Your task to perform on an android device: turn off data saver in the chrome app Image 0: 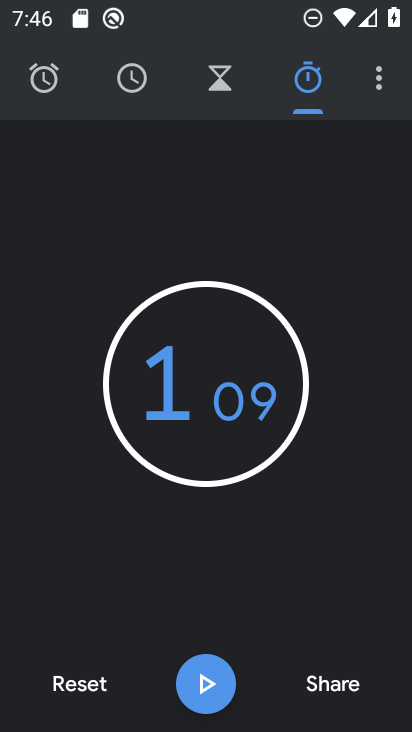
Step 0: press home button
Your task to perform on an android device: turn off data saver in the chrome app Image 1: 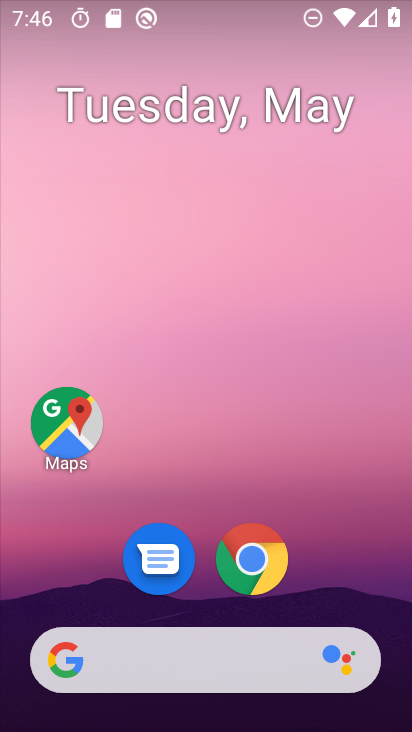
Step 1: drag from (389, 634) to (283, 73)
Your task to perform on an android device: turn off data saver in the chrome app Image 2: 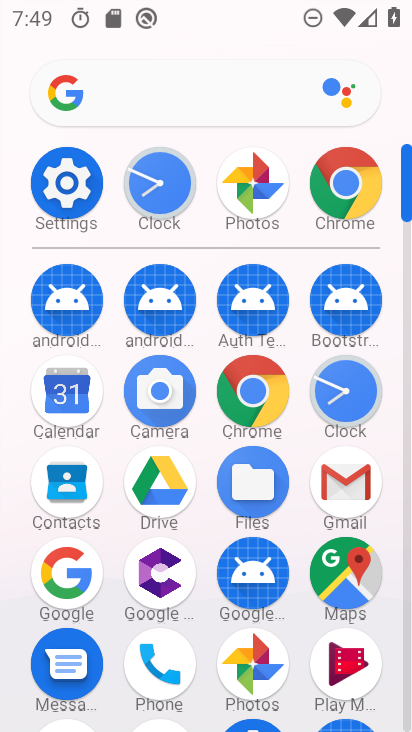
Step 2: click (283, 394)
Your task to perform on an android device: turn off data saver in the chrome app Image 3: 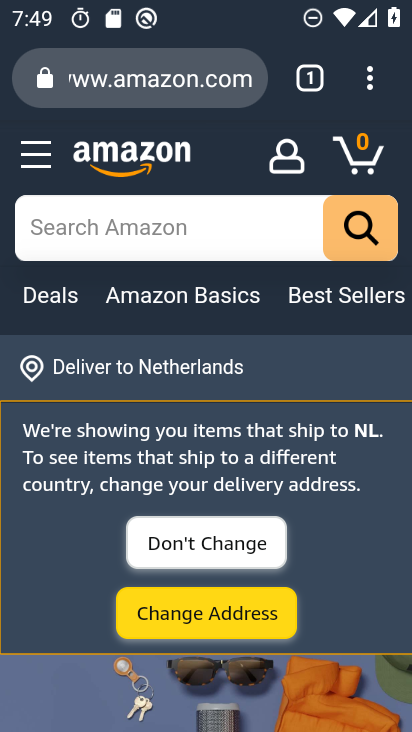
Step 3: press back button
Your task to perform on an android device: turn off data saver in the chrome app Image 4: 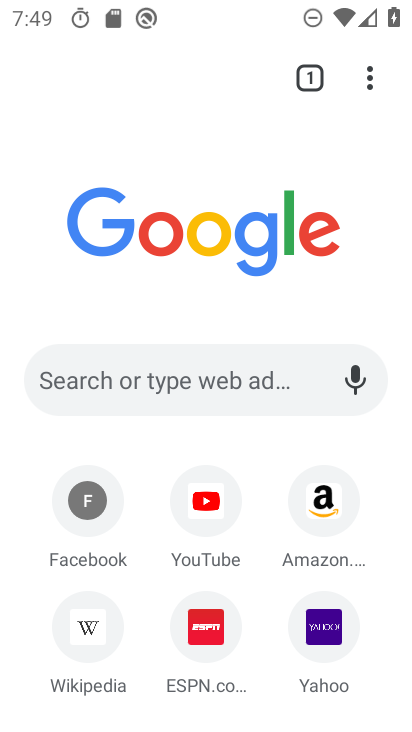
Step 4: click (365, 84)
Your task to perform on an android device: turn off data saver in the chrome app Image 5: 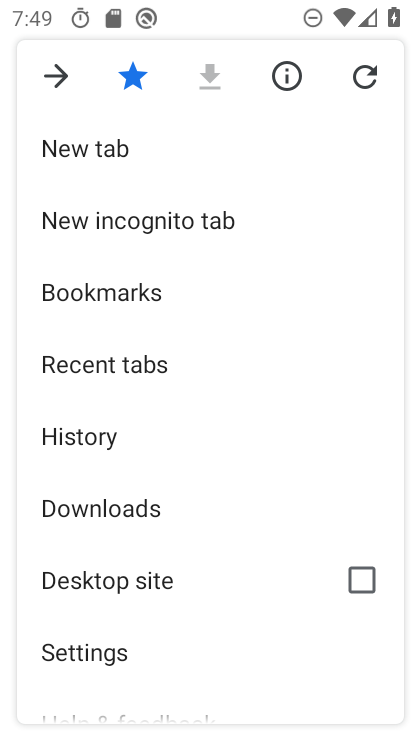
Step 5: click (93, 652)
Your task to perform on an android device: turn off data saver in the chrome app Image 6: 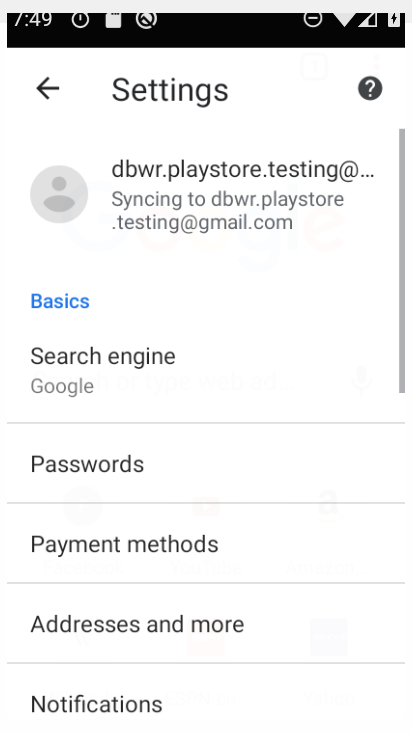
Step 6: drag from (117, 652) to (193, 151)
Your task to perform on an android device: turn off data saver in the chrome app Image 7: 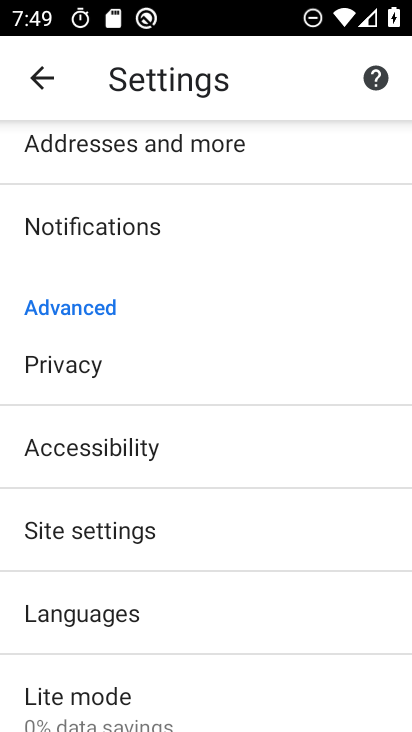
Step 7: click (123, 685)
Your task to perform on an android device: turn off data saver in the chrome app Image 8: 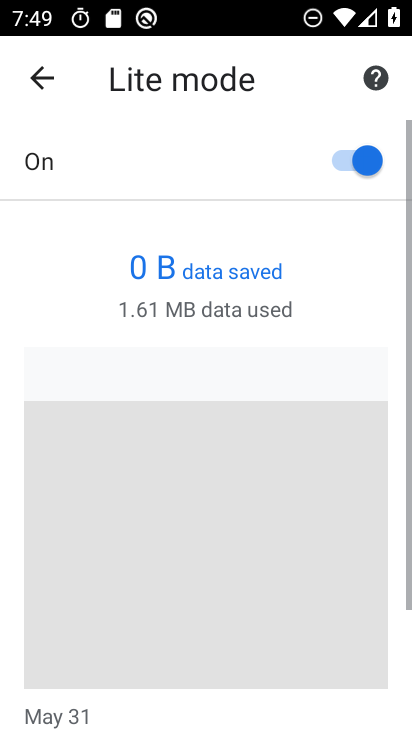
Step 8: click (352, 145)
Your task to perform on an android device: turn off data saver in the chrome app Image 9: 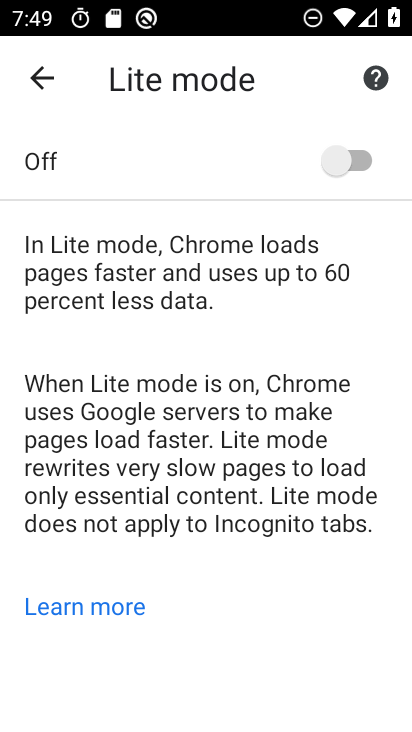
Step 9: task complete